Your task to perform on an android device: change the upload size in google photos Image 0: 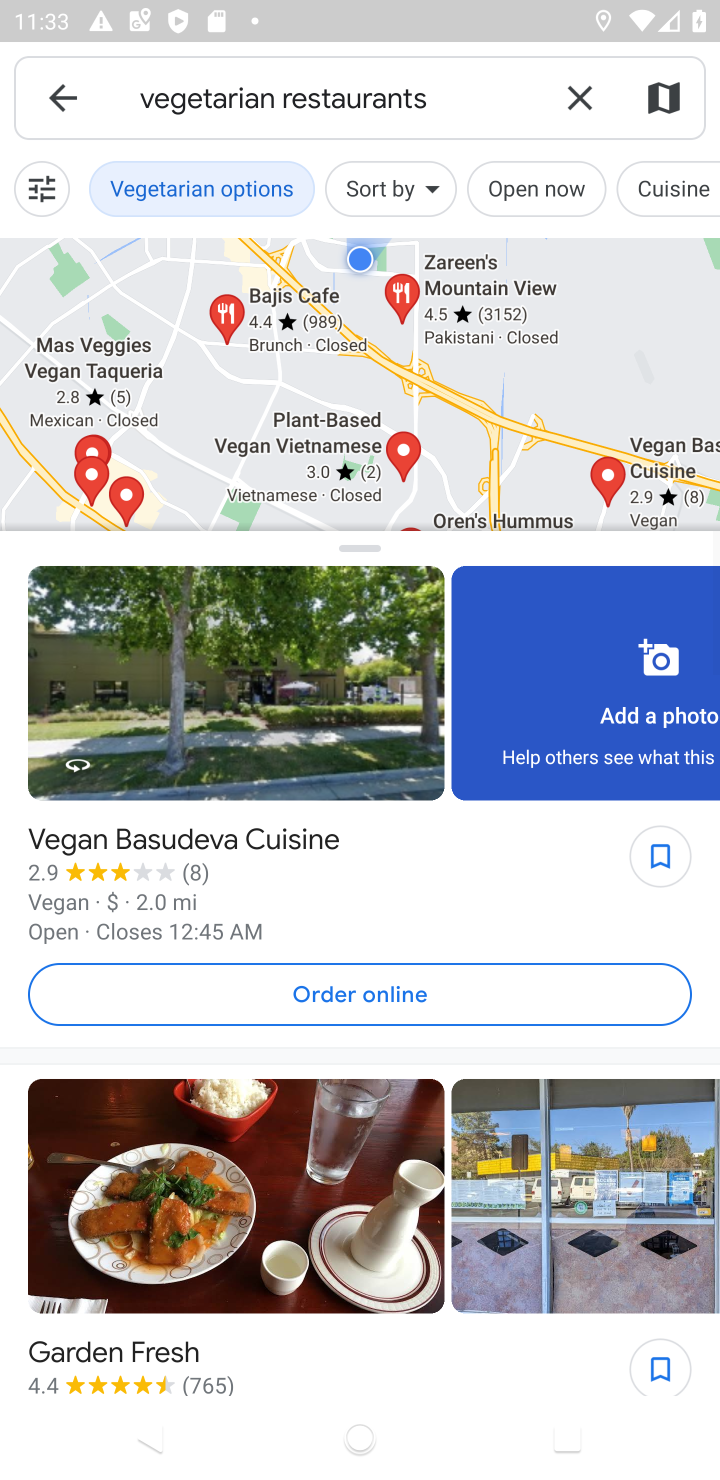
Step 0: press home button
Your task to perform on an android device: change the upload size in google photos Image 1: 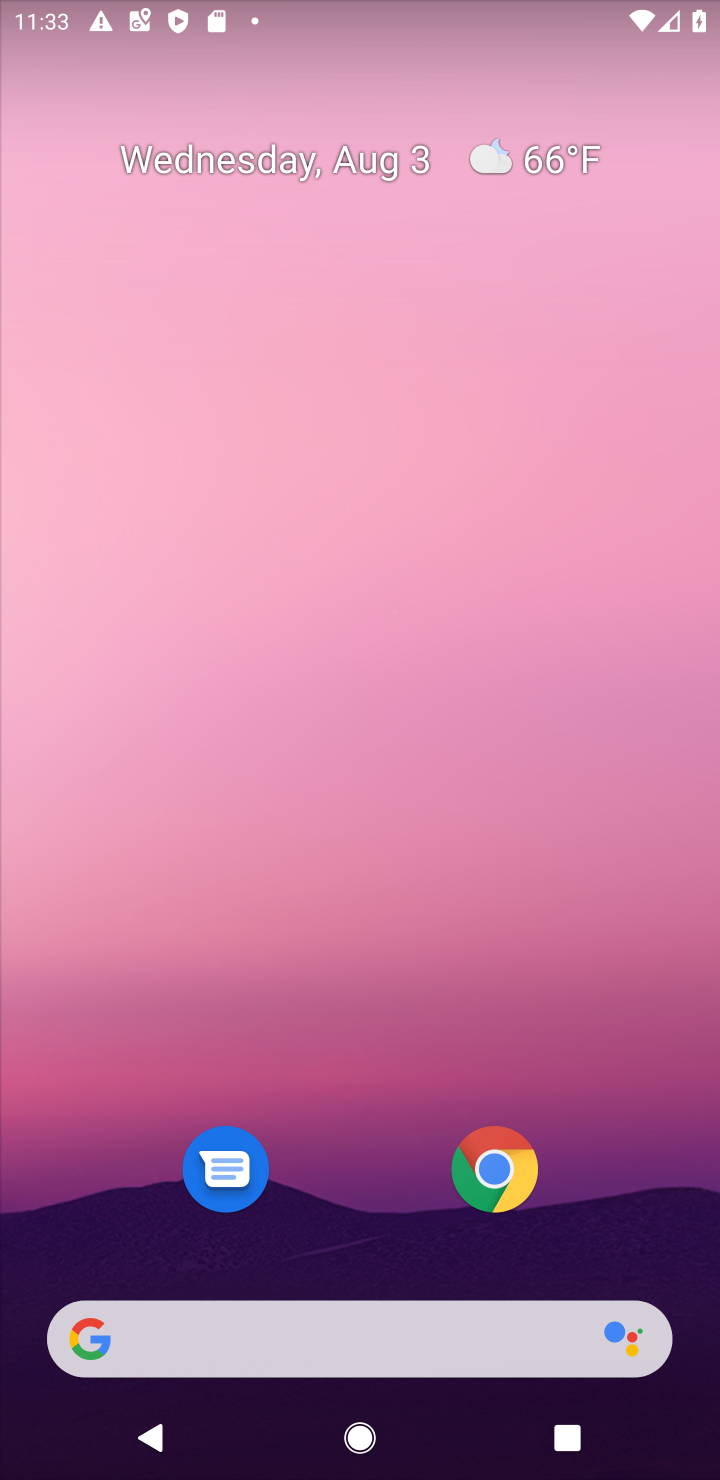
Step 1: drag from (355, 1162) to (409, 84)
Your task to perform on an android device: change the upload size in google photos Image 2: 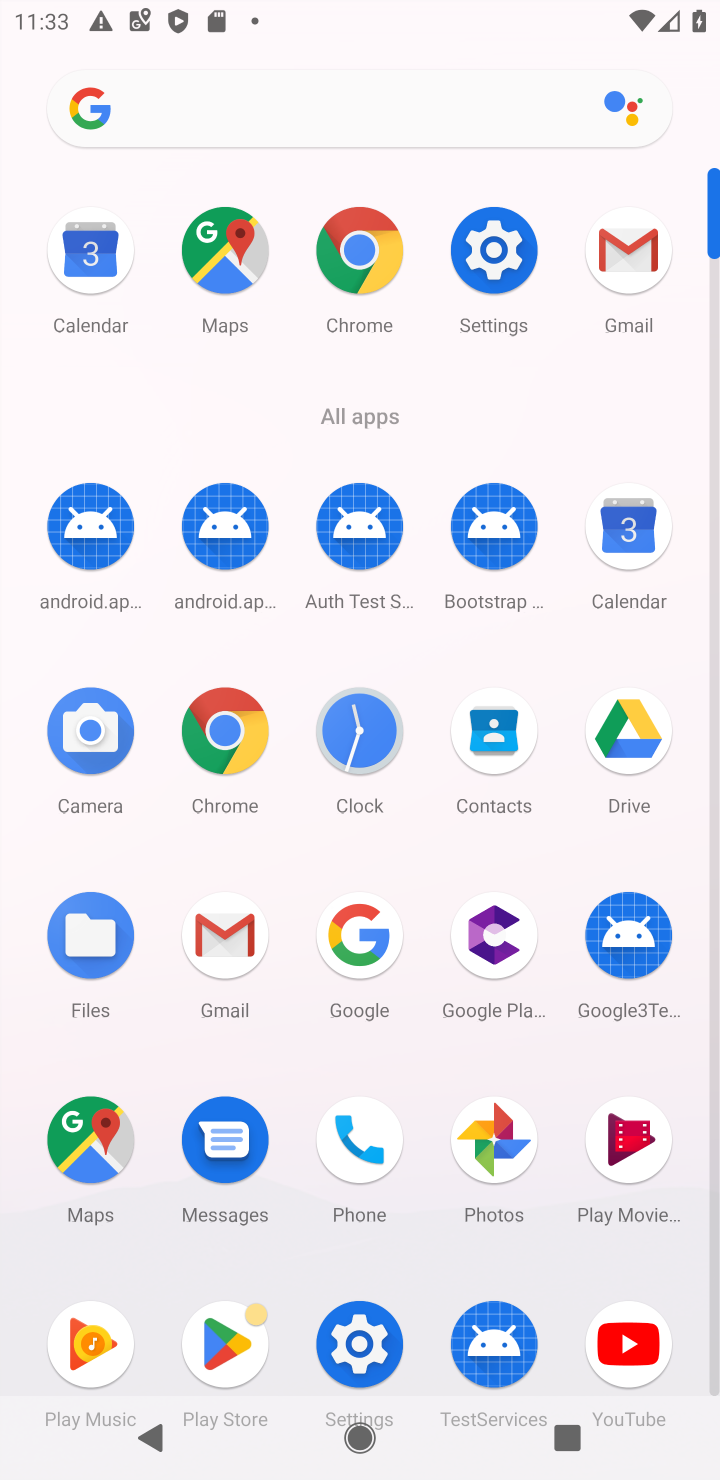
Step 2: click (498, 1157)
Your task to perform on an android device: change the upload size in google photos Image 3: 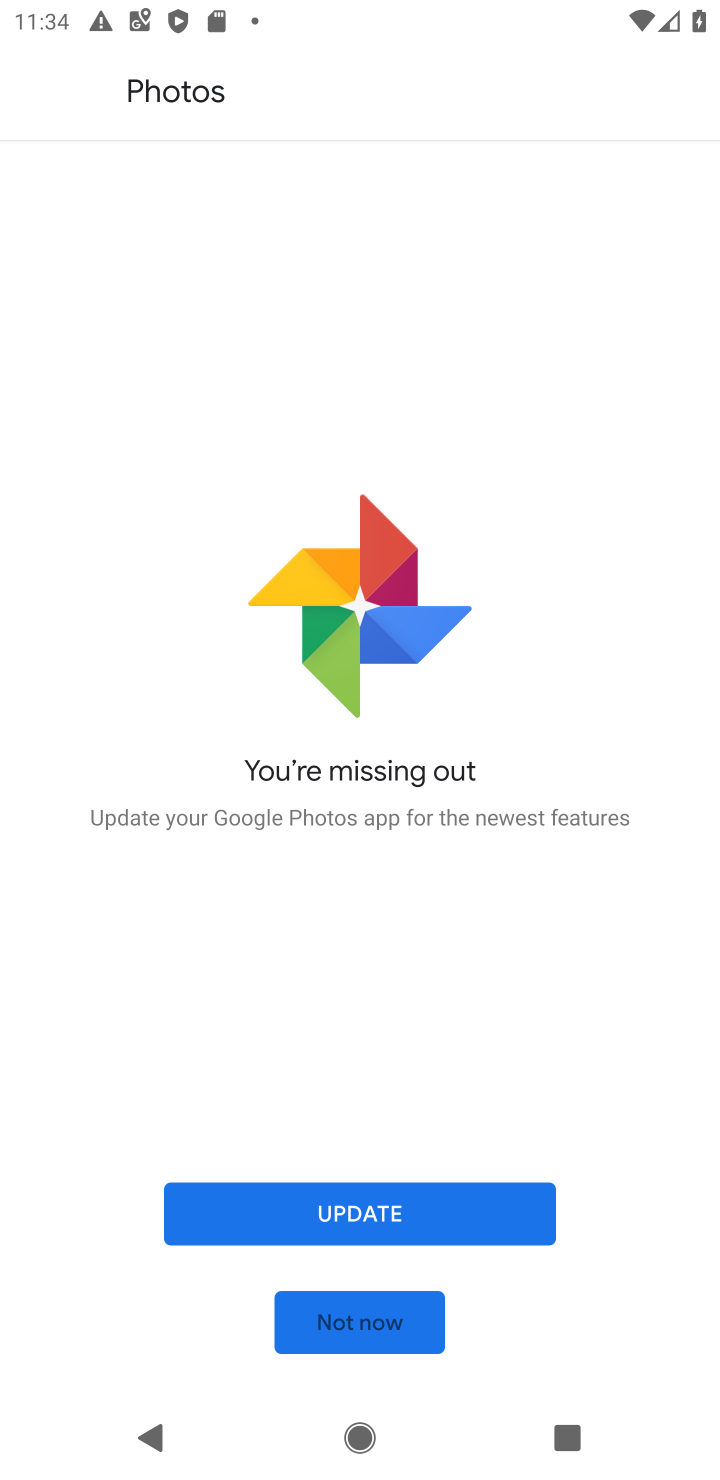
Step 3: click (367, 1334)
Your task to perform on an android device: change the upload size in google photos Image 4: 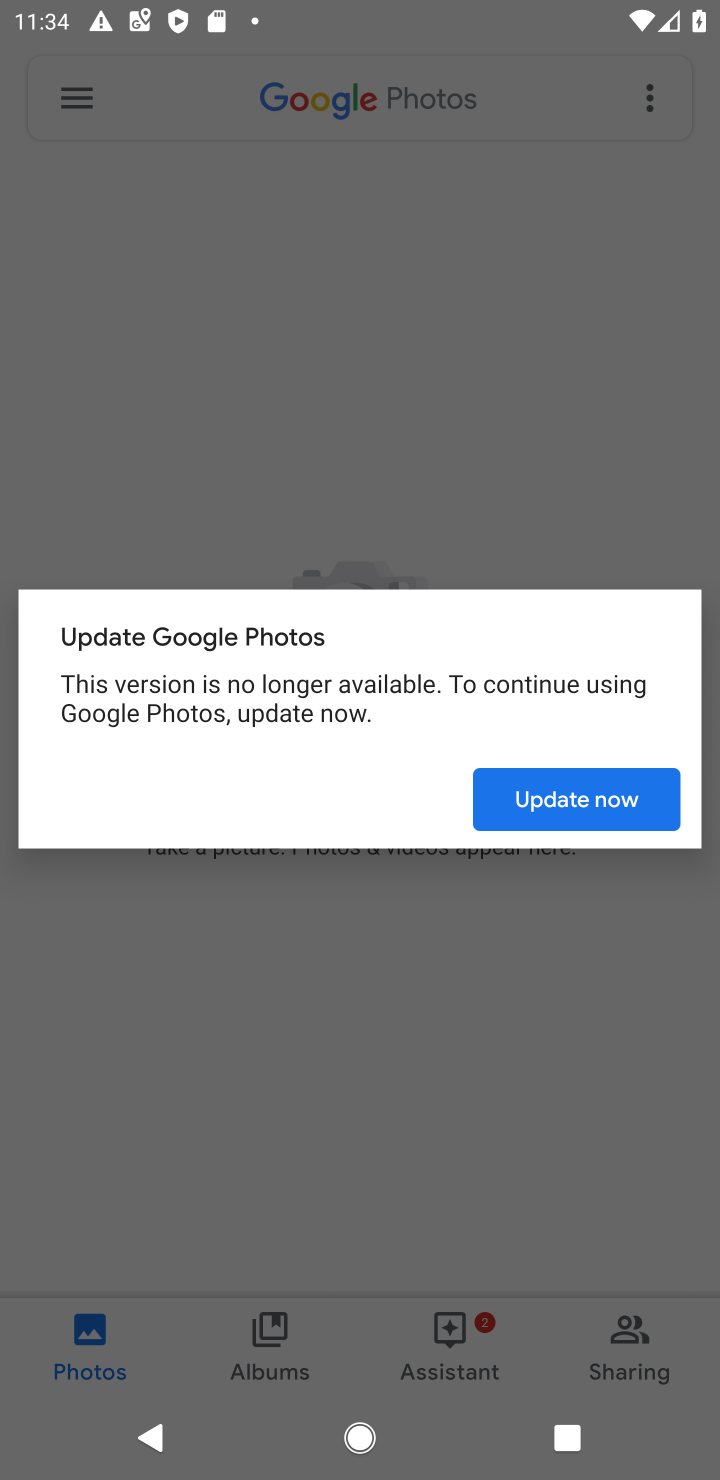
Step 4: click (546, 785)
Your task to perform on an android device: change the upload size in google photos Image 5: 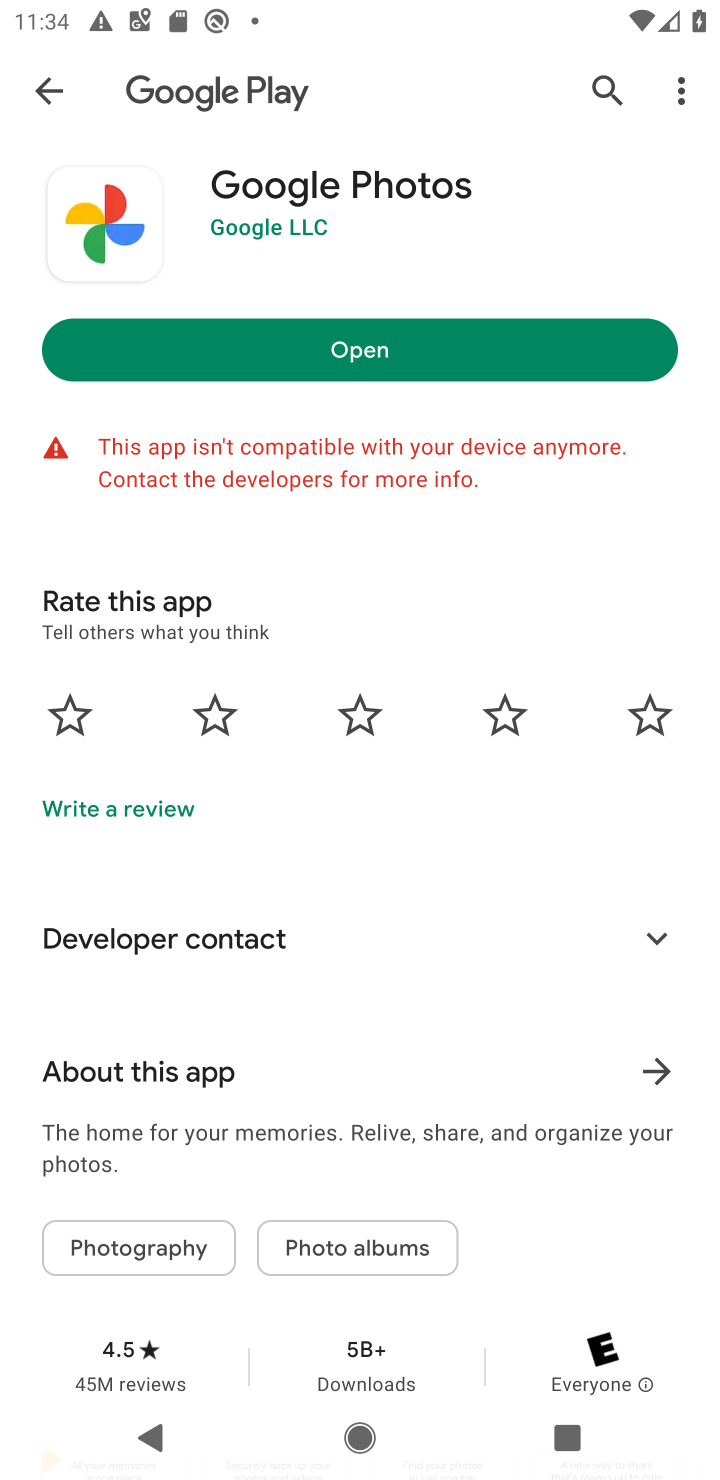
Step 5: click (308, 361)
Your task to perform on an android device: change the upload size in google photos Image 6: 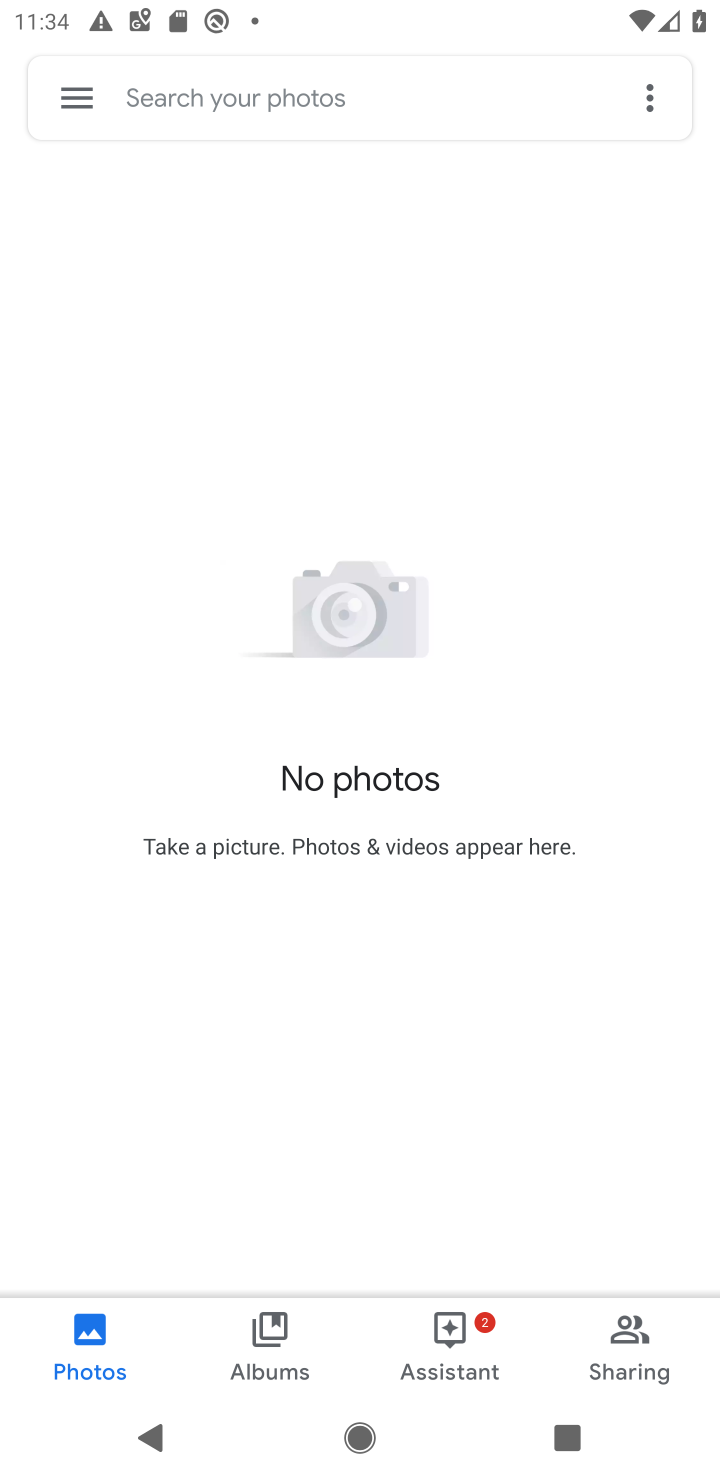
Step 6: click (70, 104)
Your task to perform on an android device: change the upload size in google photos Image 7: 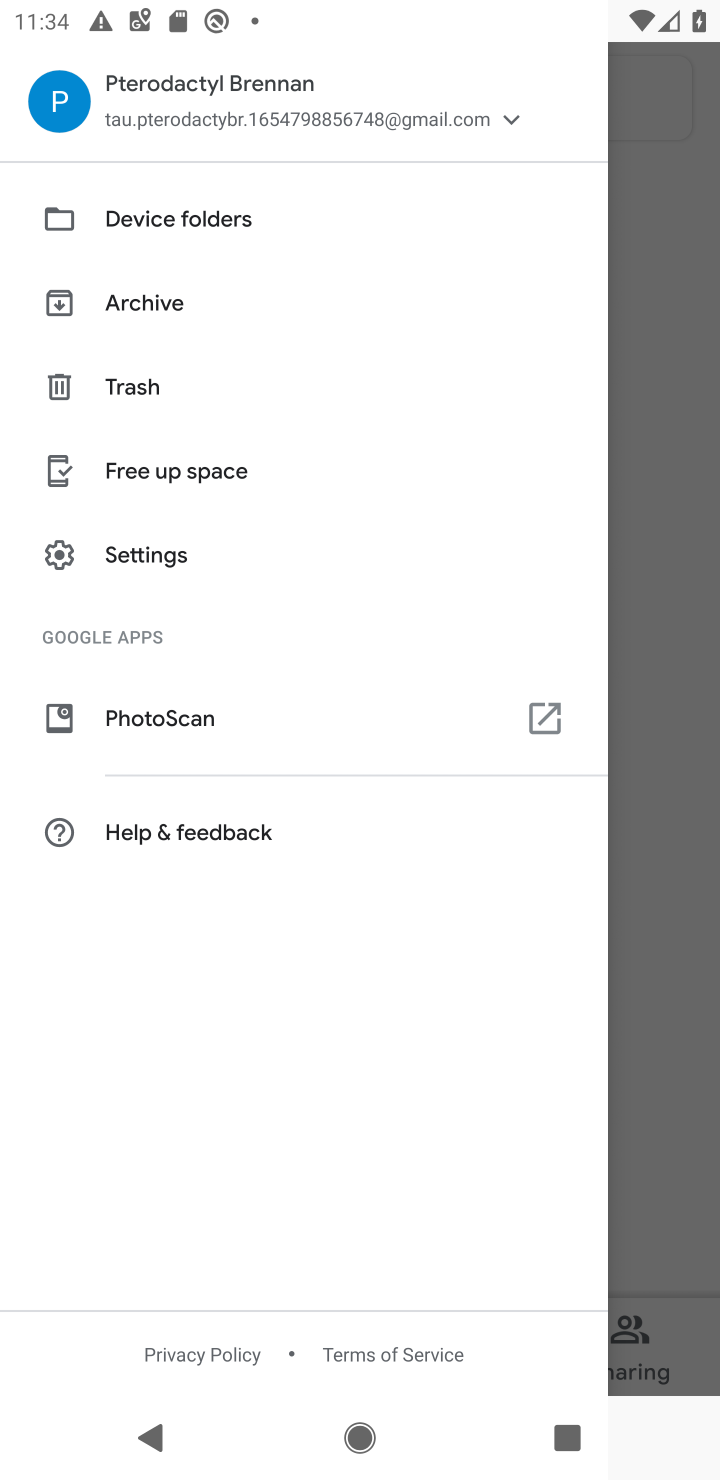
Step 7: click (117, 567)
Your task to perform on an android device: change the upload size in google photos Image 8: 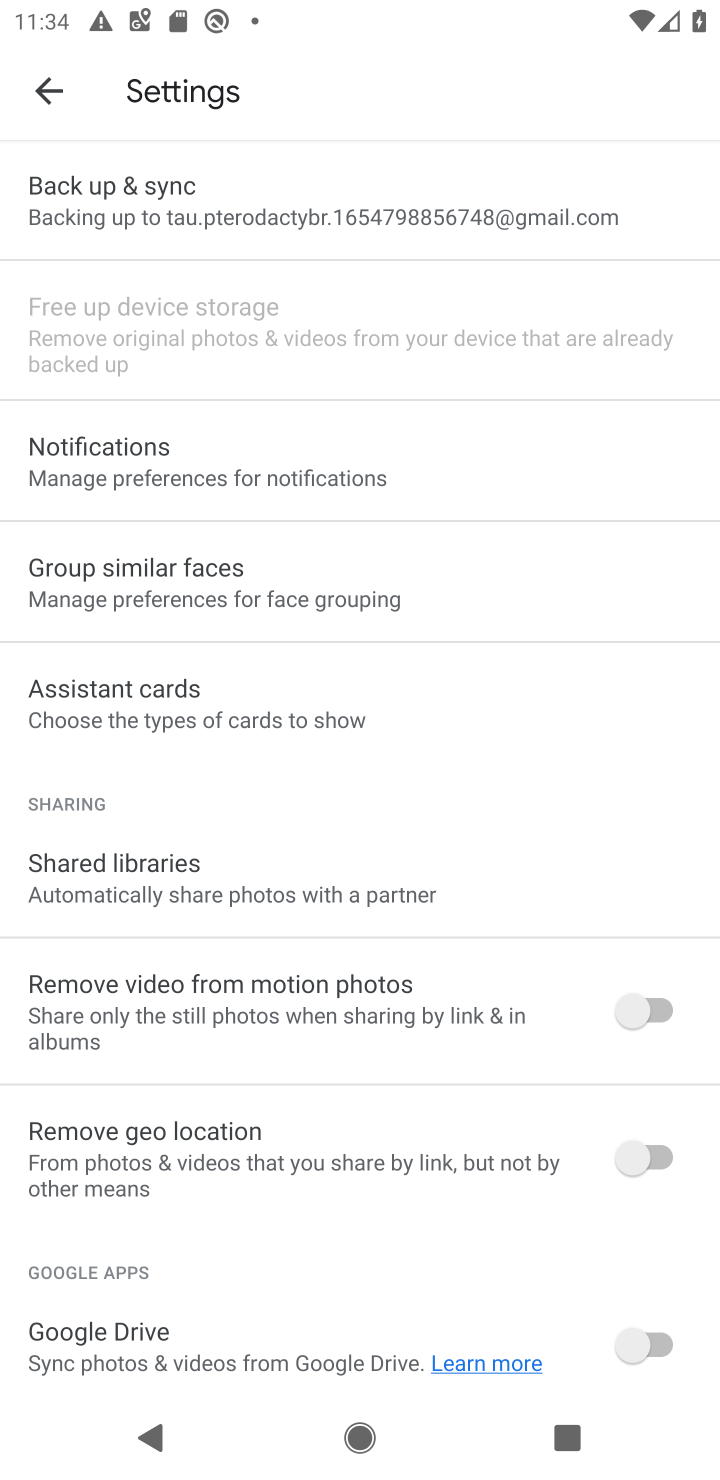
Step 8: click (115, 224)
Your task to perform on an android device: change the upload size in google photos Image 9: 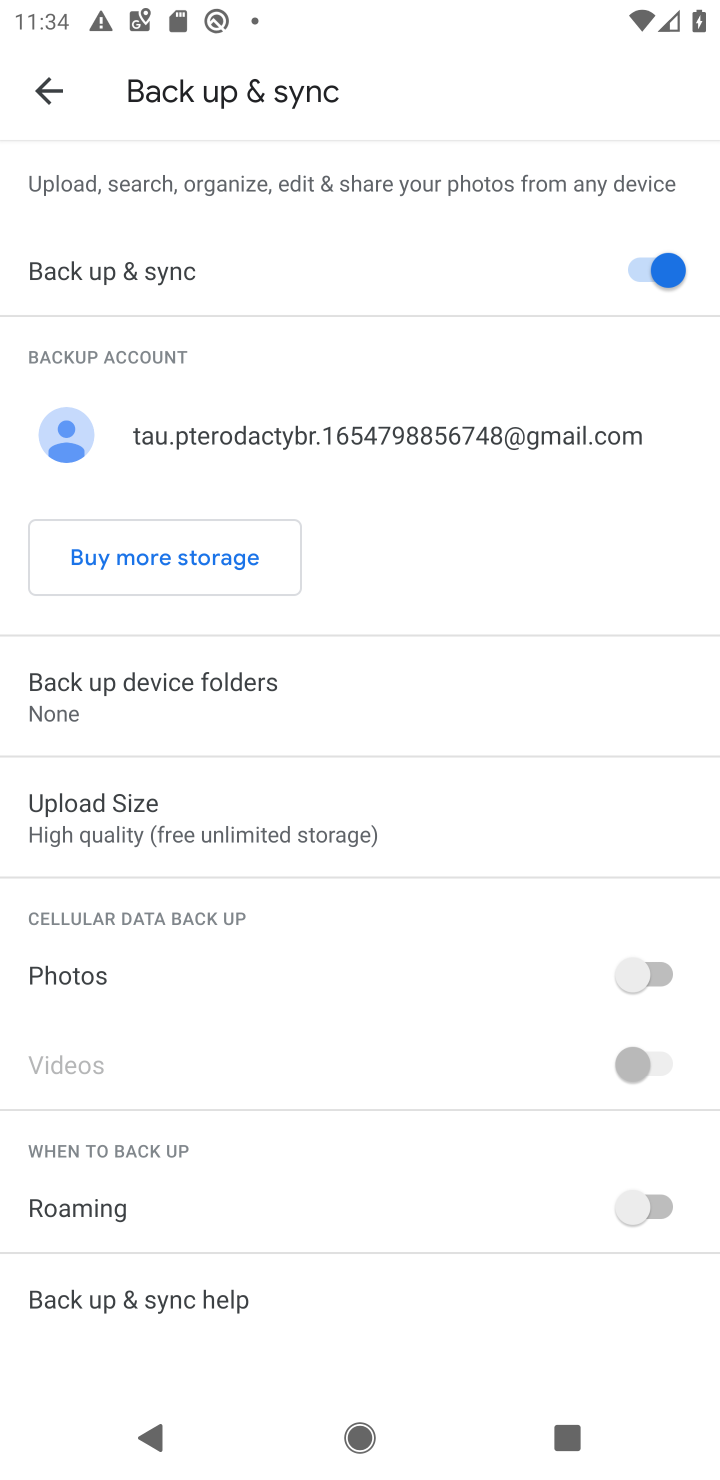
Step 9: click (163, 823)
Your task to perform on an android device: change the upload size in google photos Image 10: 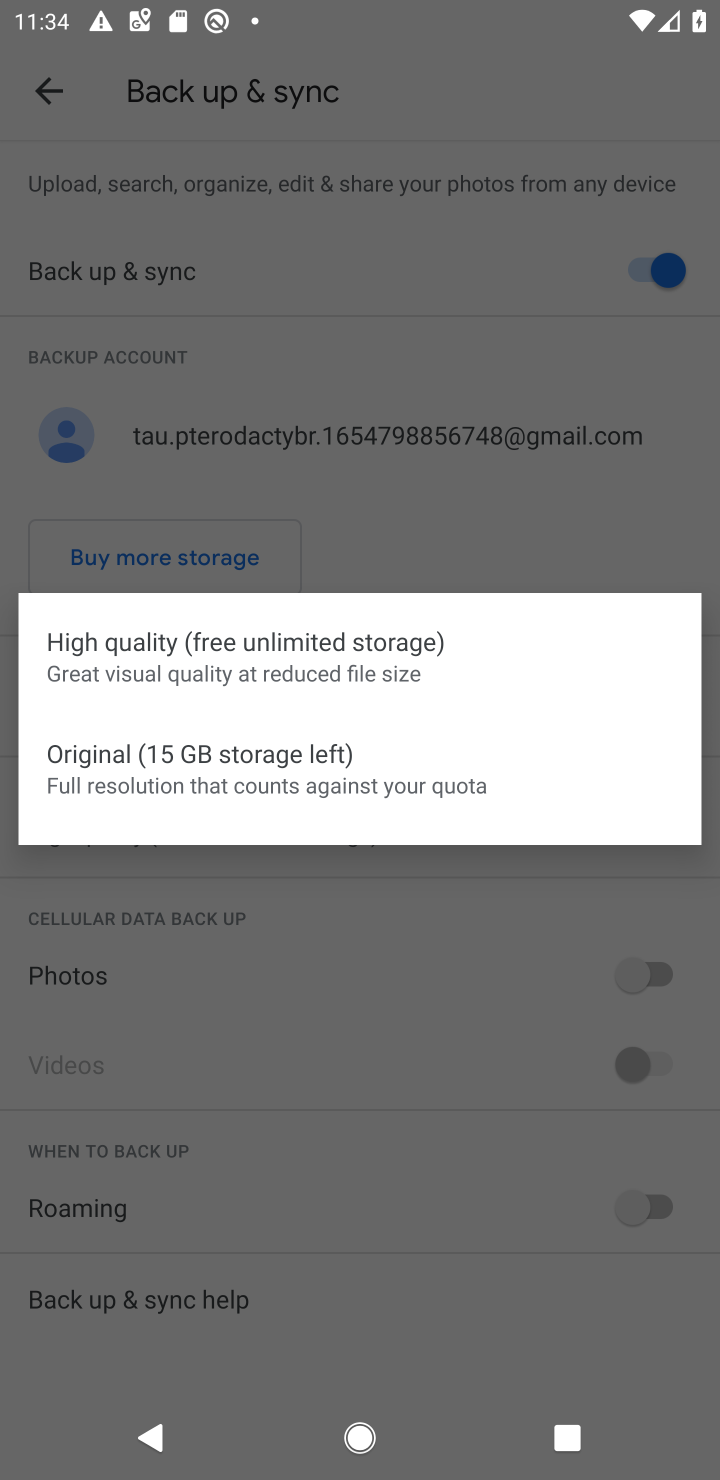
Step 10: click (157, 791)
Your task to perform on an android device: change the upload size in google photos Image 11: 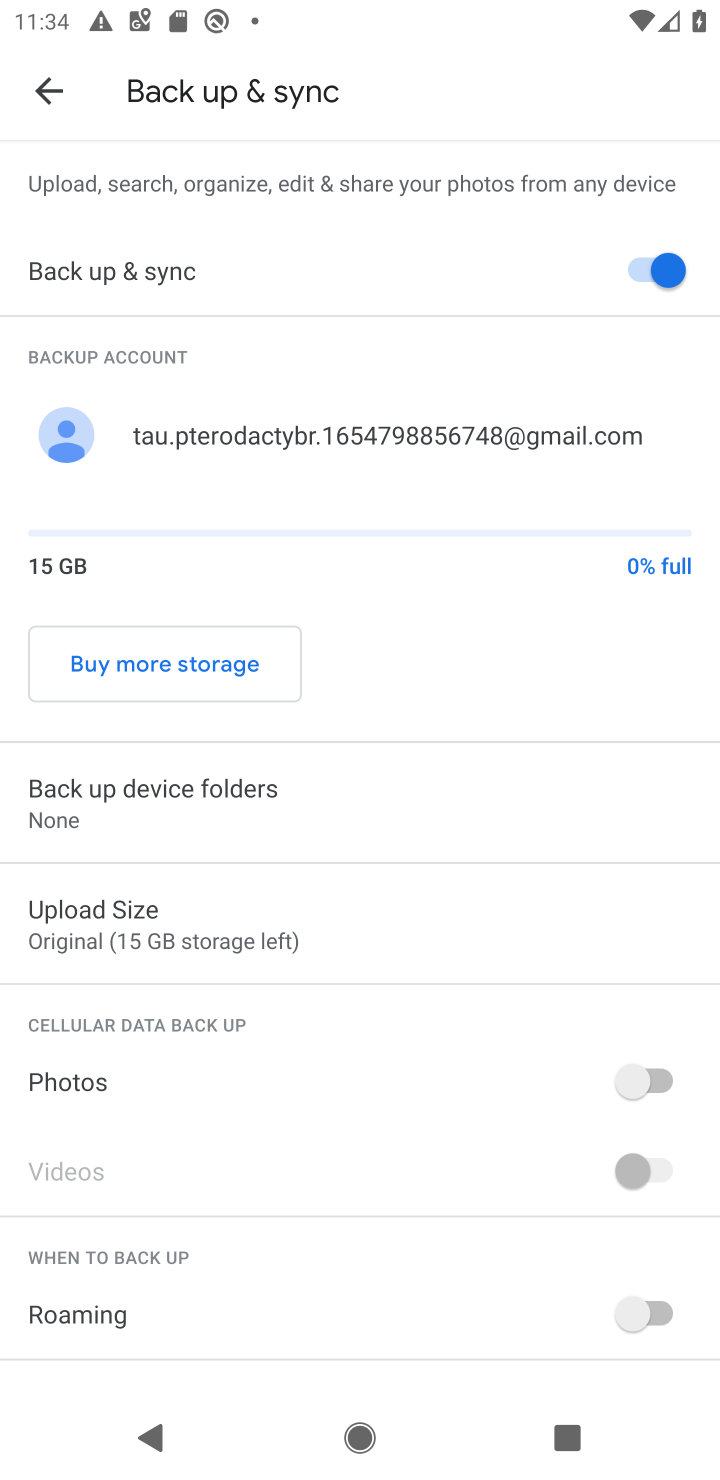
Step 11: task complete